Your task to perform on an android device: find photos in the google photos app Image 0: 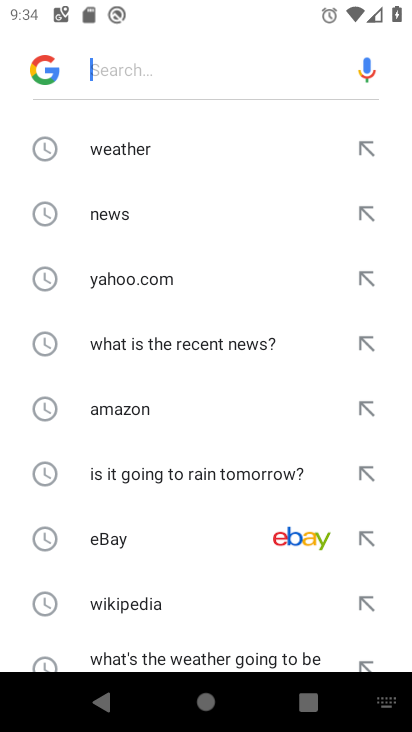
Step 0: click (156, 144)
Your task to perform on an android device: find photos in the google photos app Image 1: 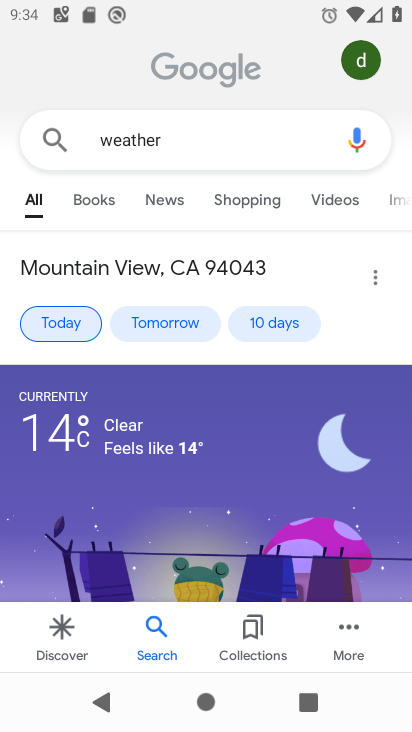
Step 1: task complete